Your task to perform on an android device: move an email to a new category in the gmail app Image 0: 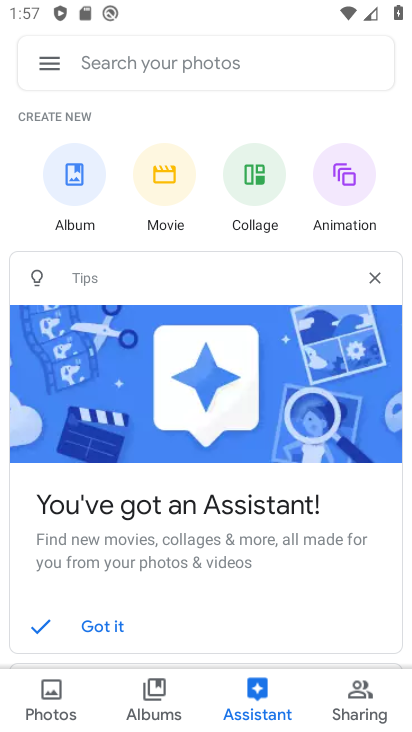
Step 0: press home button
Your task to perform on an android device: move an email to a new category in the gmail app Image 1: 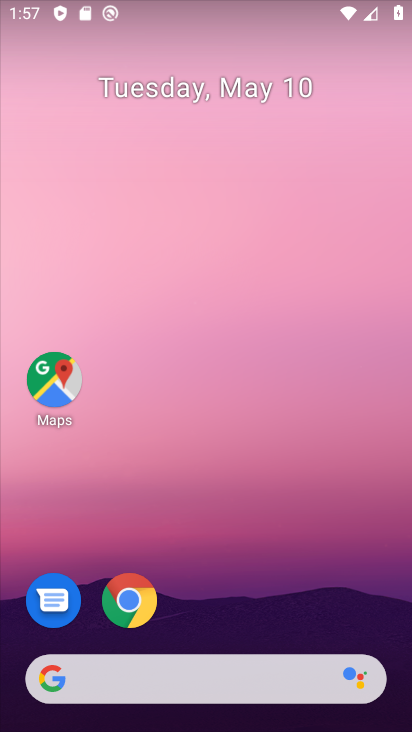
Step 1: drag from (189, 641) to (222, 278)
Your task to perform on an android device: move an email to a new category in the gmail app Image 2: 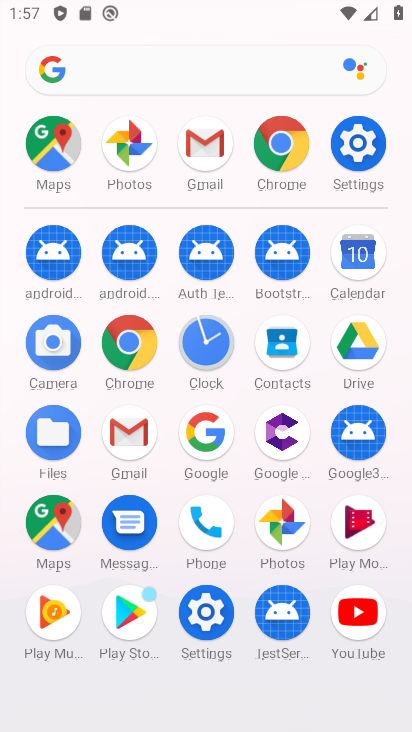
Step 2: click (142, 448)
Your task to perform on an android device: move an email to a new category in the gmail app Image 3: 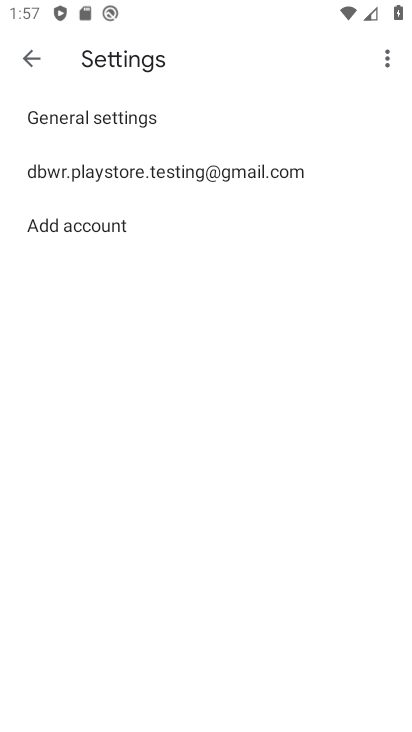
Step 3: click (29, 63)
Your task to perform on an android device: move an email to a new category in the gmail app Image 4: 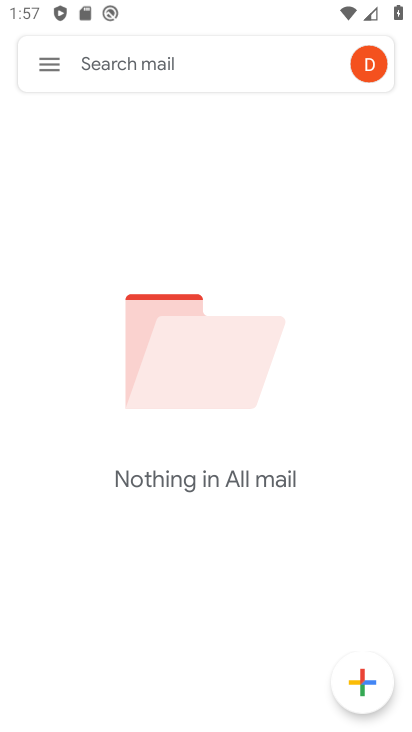
Step 4: task complete